Your task to perform on an android device: Go to accessibility settings Image 0: 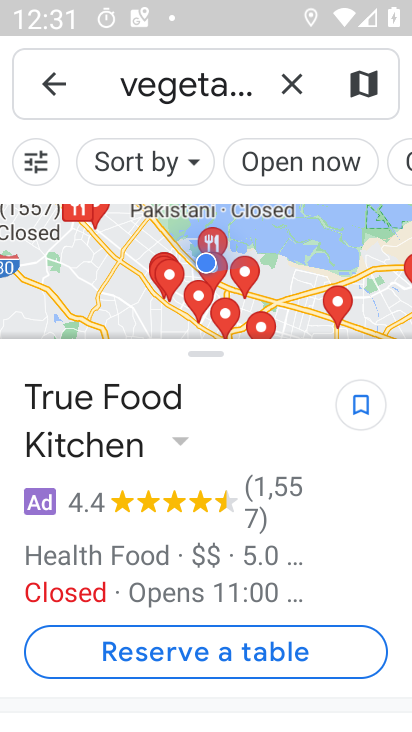
Step 0: press home button
Your task to perform on an android device: Go to accessibility settings Image 1: 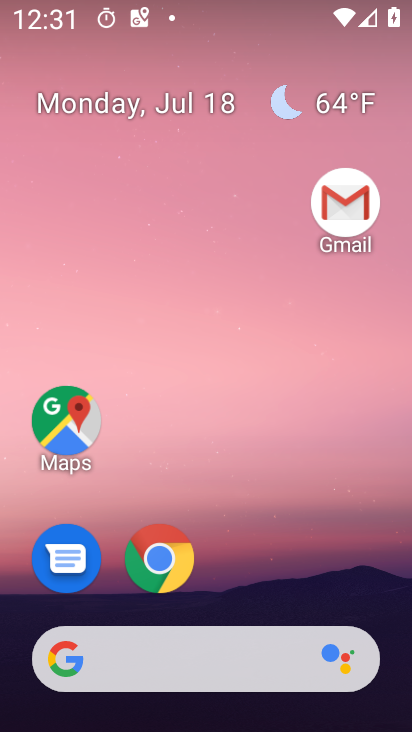
Step 1: drag from (312, 554) to (353, 109)
Your task to perform on an android device: Go to accessibility settings Image 2: 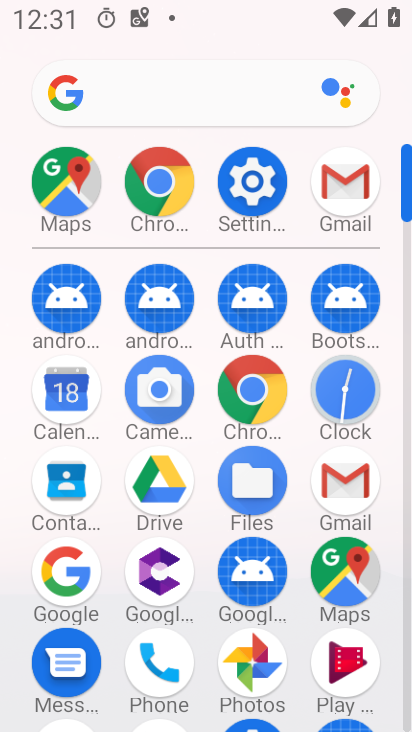
Step 2: click (250, 191)
Your task to perform on an android device: Go to accessibility settings Image 3: 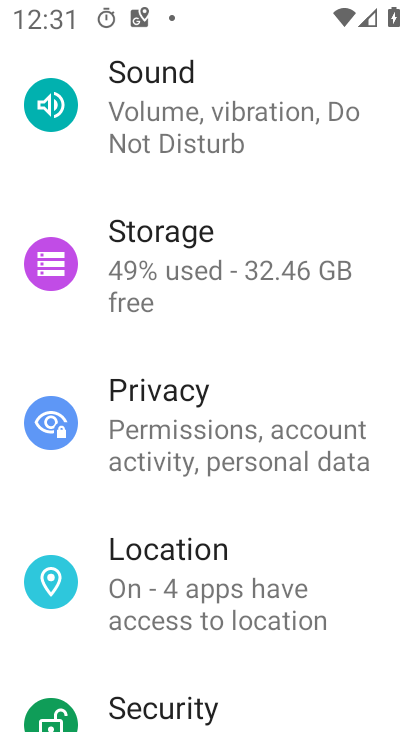
Step 3: drag from (372, 194) to (387, 343)
Your task to perform on an android device: Go to accessibility settings Image 4: 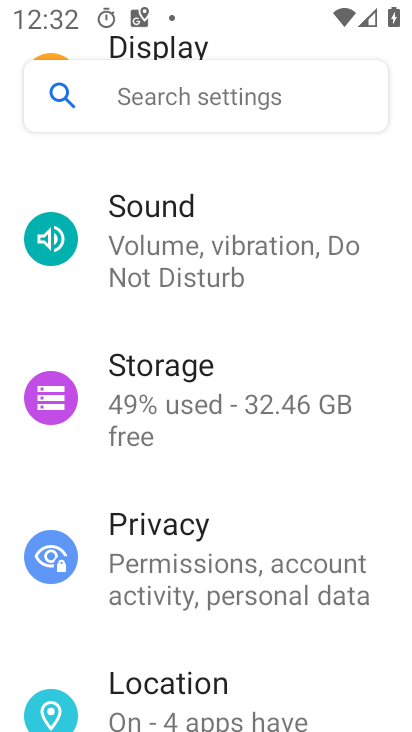
Step 4: drag from (376, 193) to (376, 324)
Your task to perform on an android device: Go to accessibility settings Image 5: 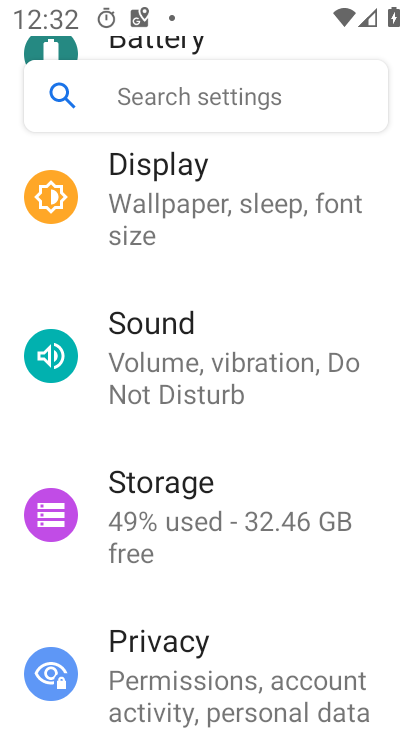
Step 5: drag from (373, 174) to (379, 273)
Your task to perform on an android device: Go to accessibility settings Image 6: 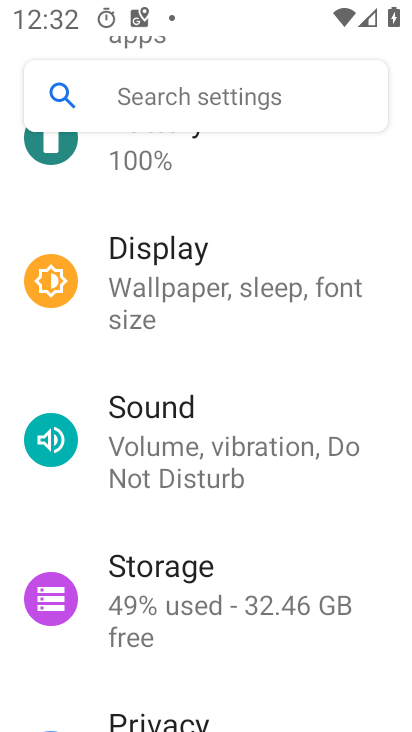
Step 6: drag from (372, 193) to (378, 330)
Your task to perform on an android device: Go to accessibility settings Image 7: 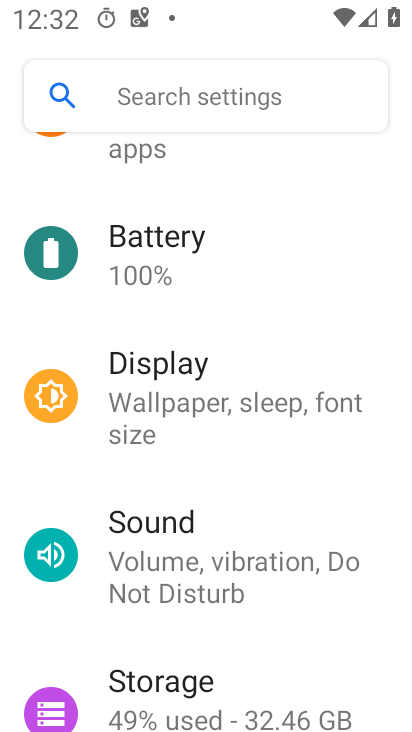
Step 7: drag from (336, 178) to (340, 341)
Your task to perform on an android device: Go to accessibility settings Image 8: 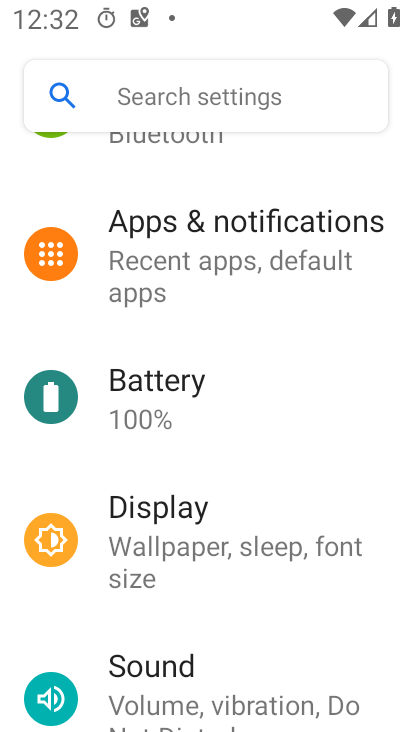
Step 8: drag from (352, 186) to (367, 305)
Your task to perform on an android device: Go to accessibility settings Image 9: 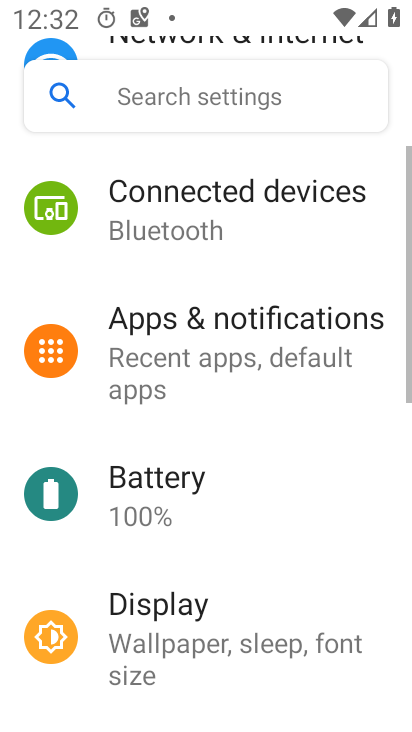
Step 9: drag from (351, 446) to (383, 244)
Your task to perform on an android device: Go to accessibility settings Image 10: 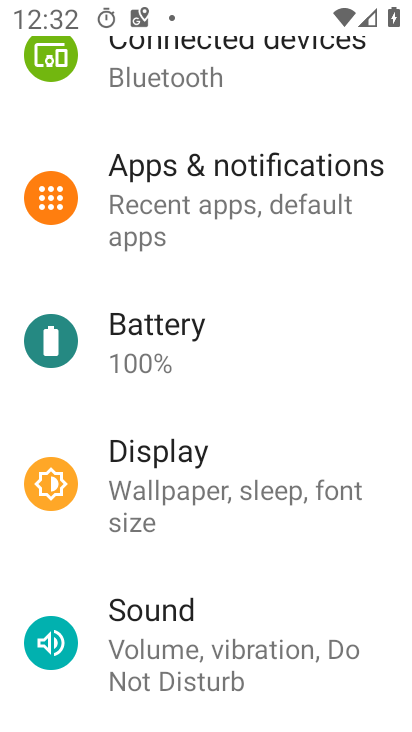
Step 10: drag from (347, 378) to (359, 274)
Your task to perform on an android device: Go to accessibility settings Image 11: 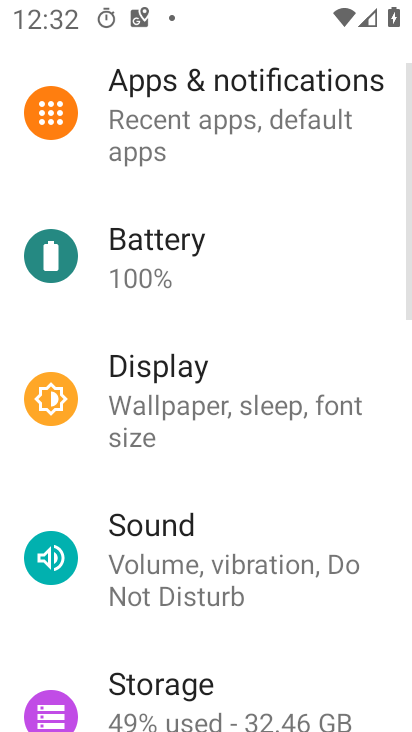
Step 11: drag from (334, 460) to (352, 332)
Your task to perform on an android device: Go to accessibility settings Image 12: 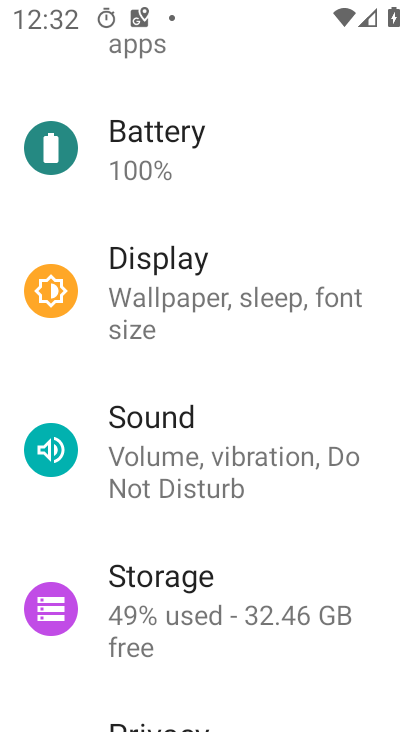
Step 12: drag from (352, 450) to (400, 219)
Your task to perform on an android device: Go to accessibility settings Image 13: 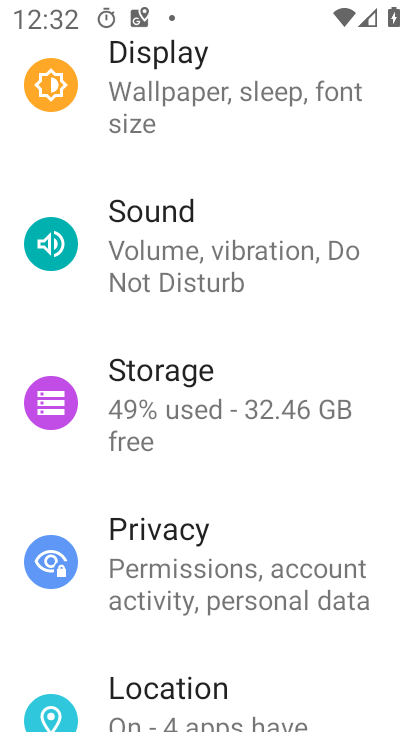
Step 13: drag from (347, 462) to (381, 271)
Your task to perform on an android device: Go to accessibility settings Image 14: 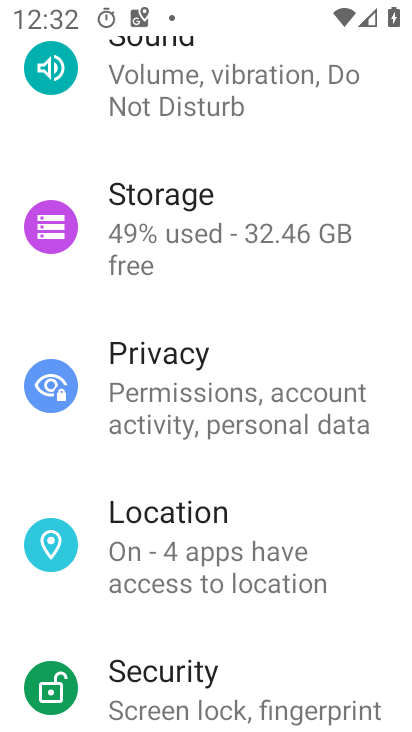
Step 14: drag from (343, 498) to (363, 264)
Your task to perform on an android device: Go to accessibility settings Image 15: 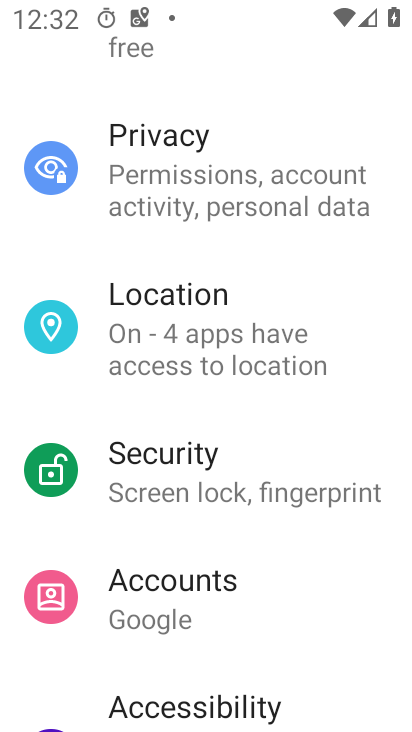
Step 15: drag from (333, 567) to (354, 337)
Your task to perform on an android device: Go to accessibility settings Image 16: 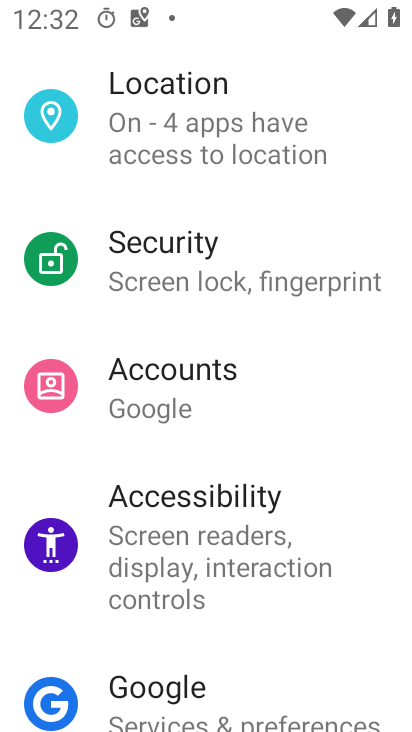
Step 16: click (258, 522)
Your task to perform on an android device: Go to accessibility settings Image 17: 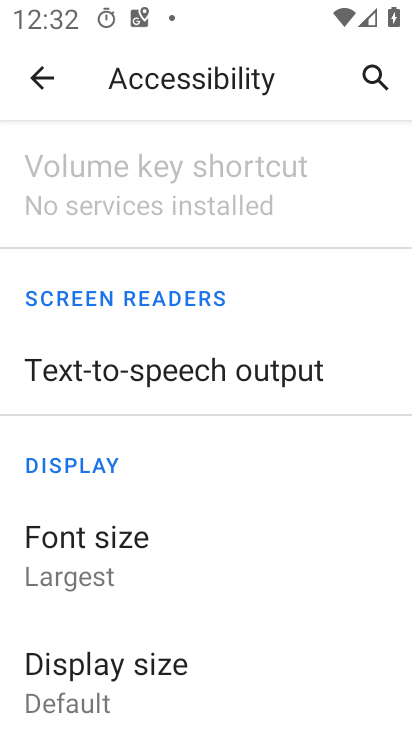
Step 17: task complete